Your task to perform on an android device: What's on my calendar tomorrow? Image 0: 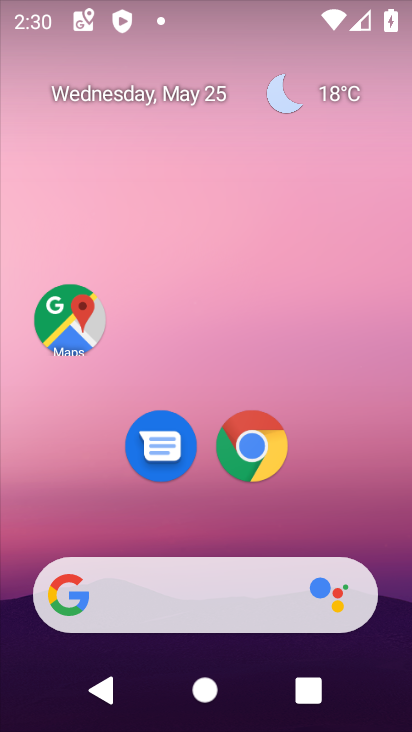
Step 0: drag from (225, 588) to (206, 166)
Your task to perform on an android device: What's on my calendar tomorrow? Image 1: 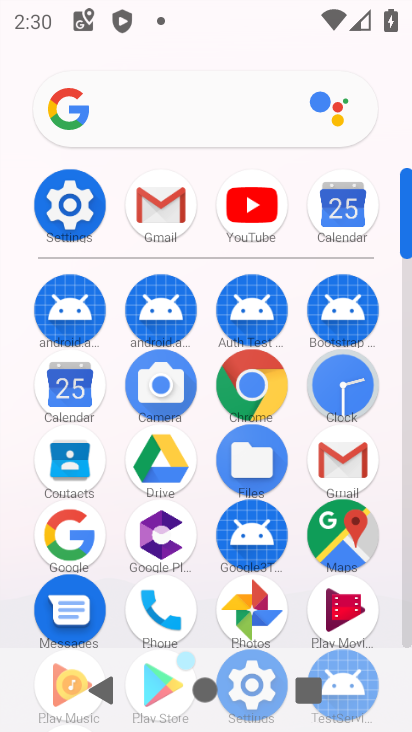
Step 1: click (63, 406)
Your task to perform on an android device: What's on my calendar tomorrow? Image 2: 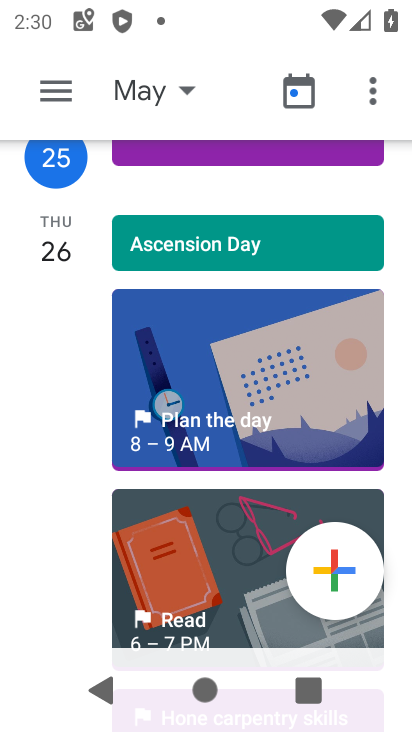
Step 2: task complete